Your task to perform on an android device: When is my next appointment? Image 0: 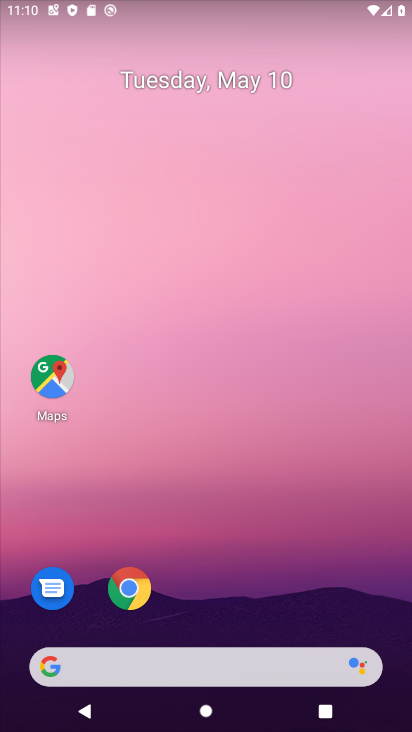
Step 0: click (261, 305)
Your task to perform on an android device: When is my next appointment? Image 1: 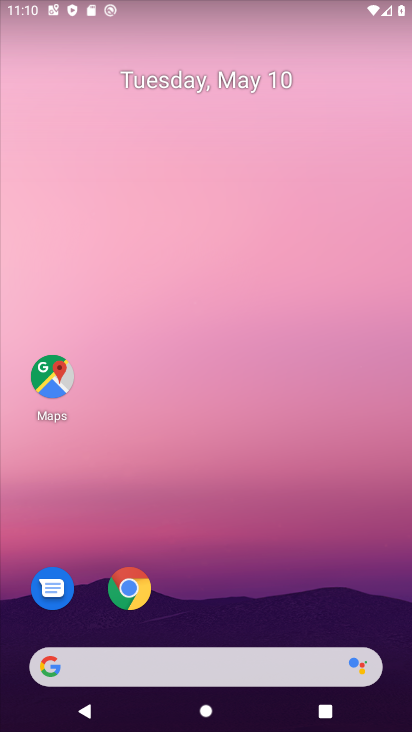
Step 1: drag from (274, 516) to (196, 10)
Your task to perform on an android device: When is my next appointment? Image 2: 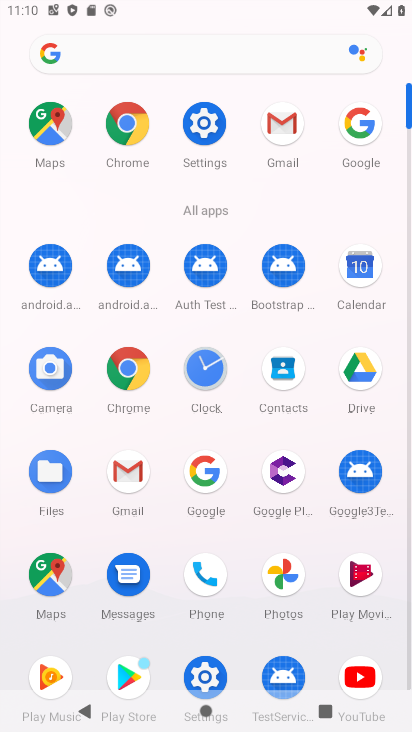
Step 2: click (344, 267)
Your task to perform on an android device: When is my next appointment? Image 3: 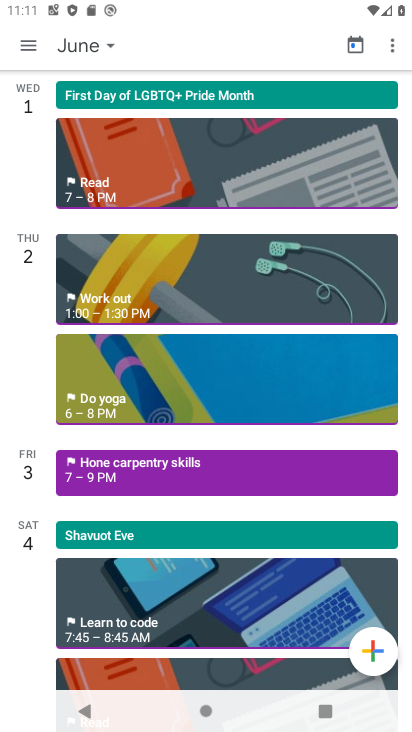
Step 3: drag from (194, 265) to (142, 67)
Your task to perform on an android device: When is my next appointment? Image 4: 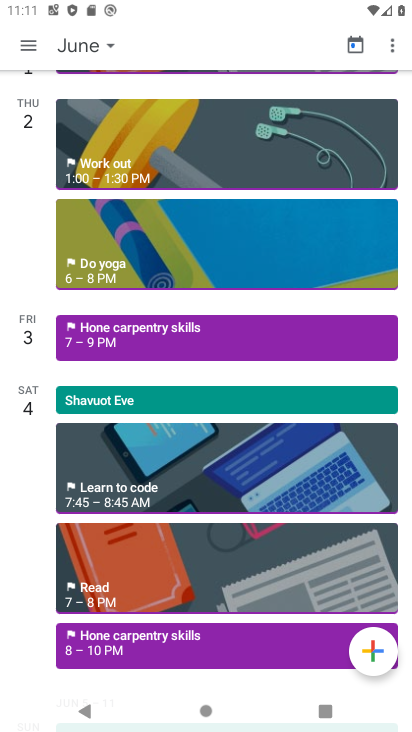
Step 4: drag from (206, 145) to (206, 58)
Your task to perform on an android device: When is my next appointment? Image 5: 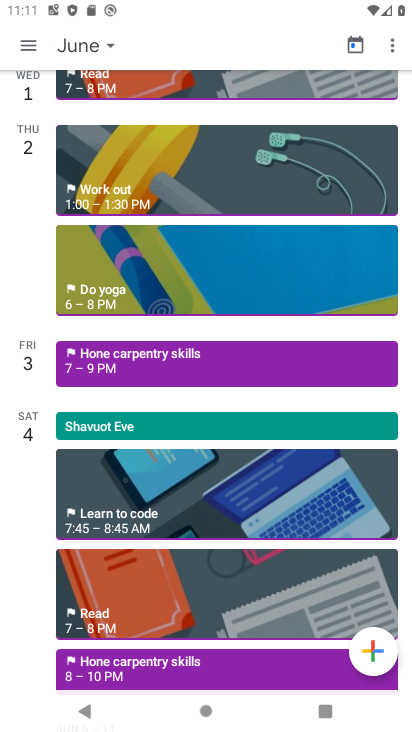
Step 5: click (172, 158)
Your task to perform on an android device: When is my next appointment? Image 6: 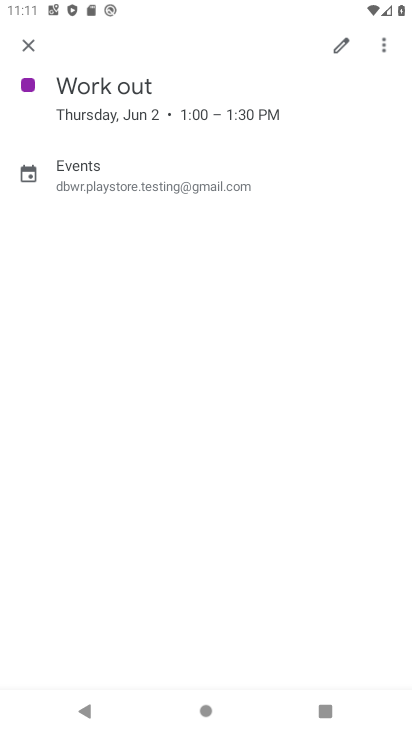
Step 6: click (20, 42)
Your task to perform on an android device: When is my next appointment? Image 7: 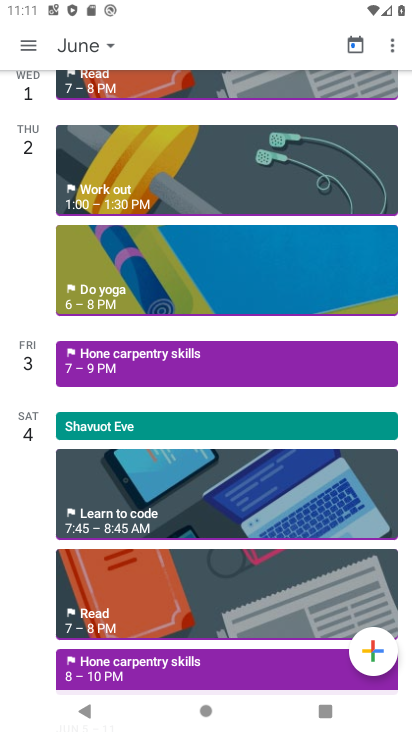
Step 7: task complete